Your task to perform on an android device: Open sound settings Image 0: 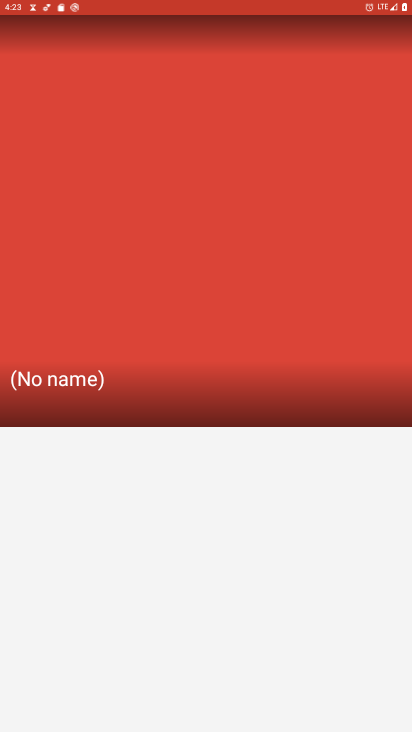
Step 0: drag from (295, 690) to (291, 128)
Your task to perform on an android device: Open sound settings Image 1: 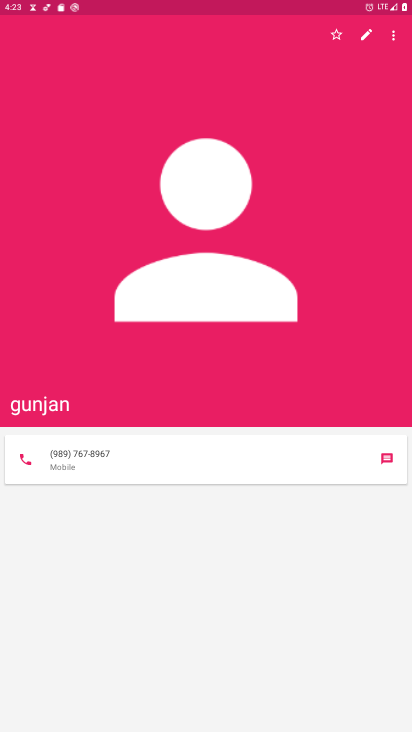
Step 1: press home button
Your task to perform on an android device: Open sound settings Image 2: 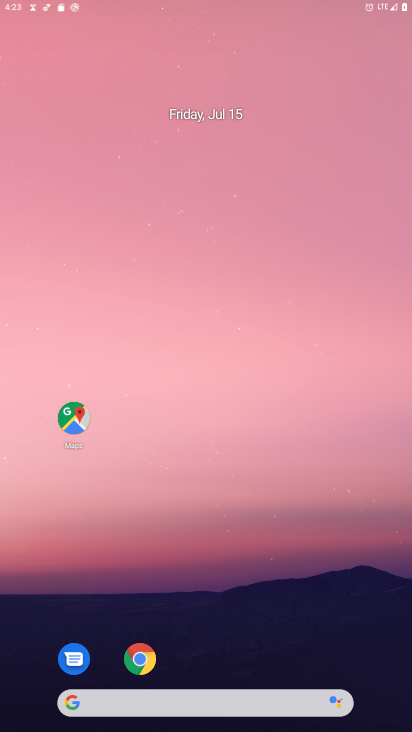
Step 2: drag from (299, 689) to (266, 102)
Your task to perform on an android device: Open sound settings Image 3: 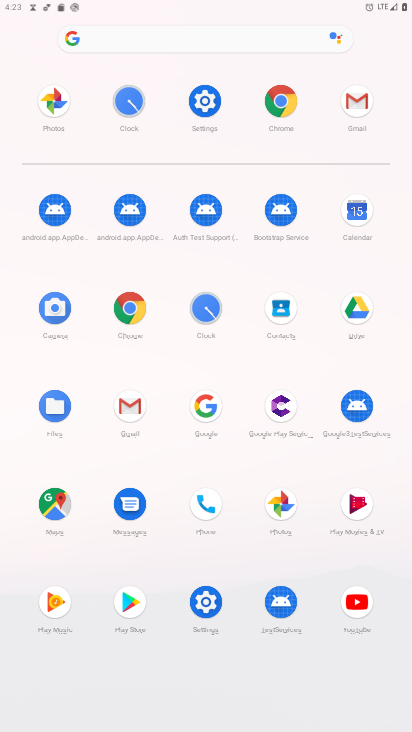
Step 3: click (205, 107)
Your task to perform on an android device: Open sound settings Image 4: 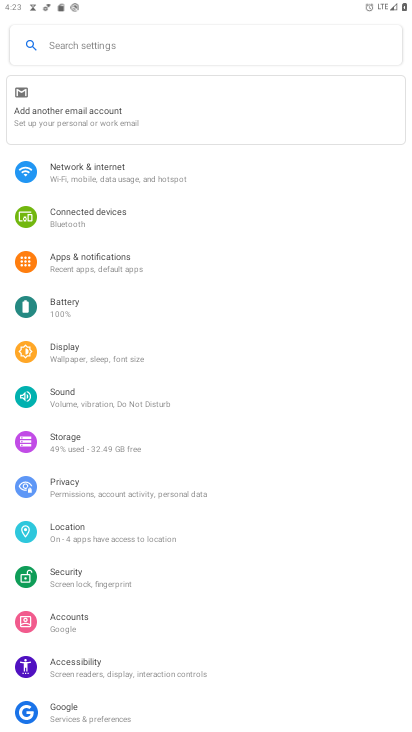
Step 4: click (111, 395)
Your task to perform on an android device: Open sound settings Image 5: 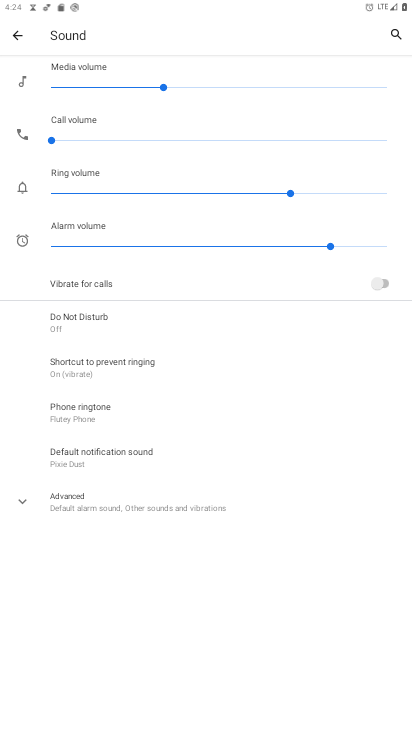
Step 5: task complete